Your task to perform on an android device: toggle pop-ups in chrome Image 0: 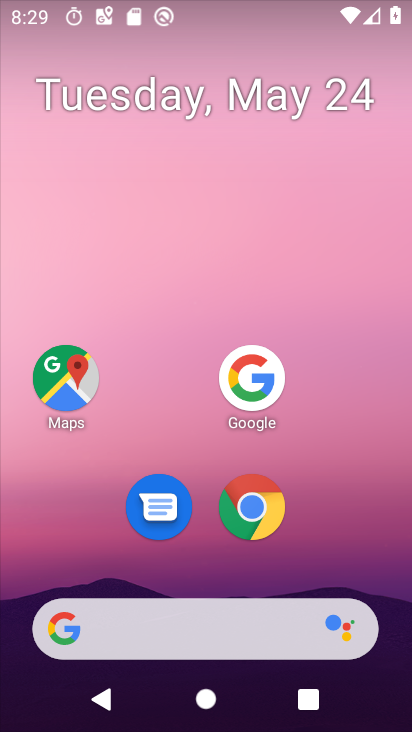
Step 0: press home button
Your task to perform on an android device: toggle pop-ups in chrome Image 1: 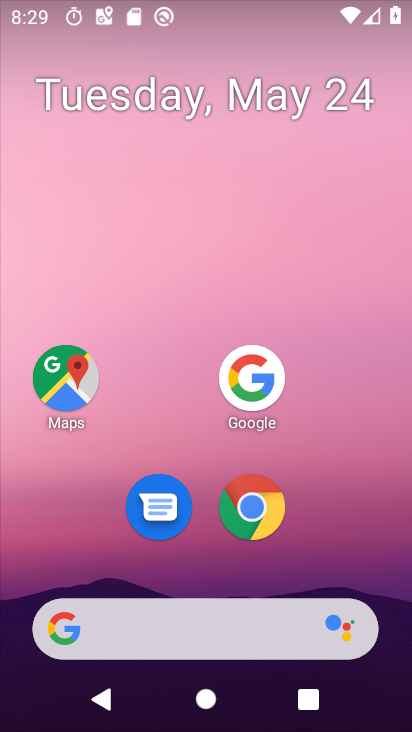
Step 1: click (256, 510)
Your task to perform on an android device: toggle pop-ups in chrome Image 2: 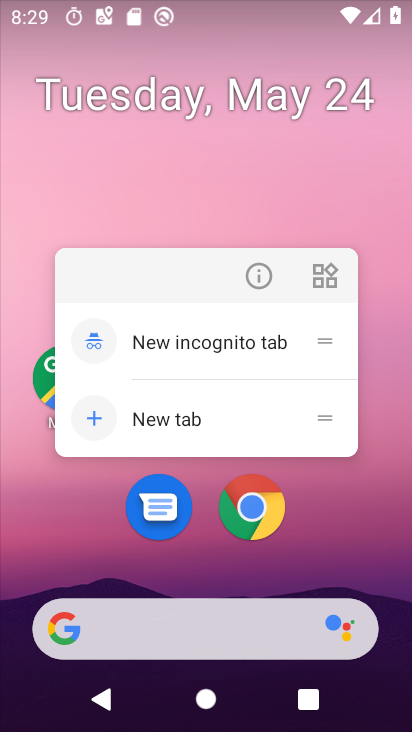
Step 2: click (260, 516)
Your task to perform on an android device: toggle pop-ups in chrome Image 3: 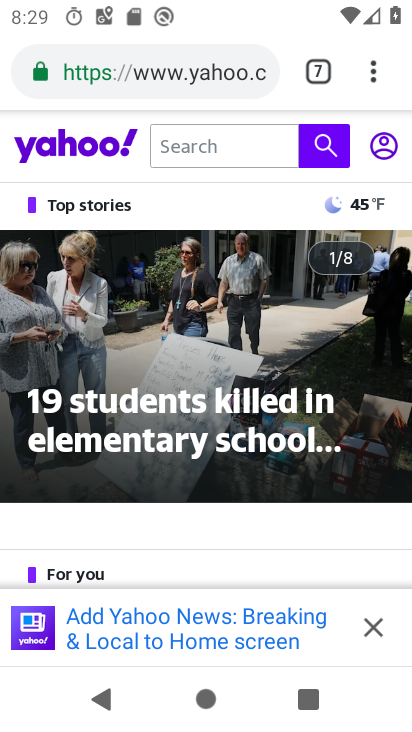
Step 3: drag from (375, 75) to (221, 513)
Your task to perform on an android device: toggle pop-ups in chrome Image 4: 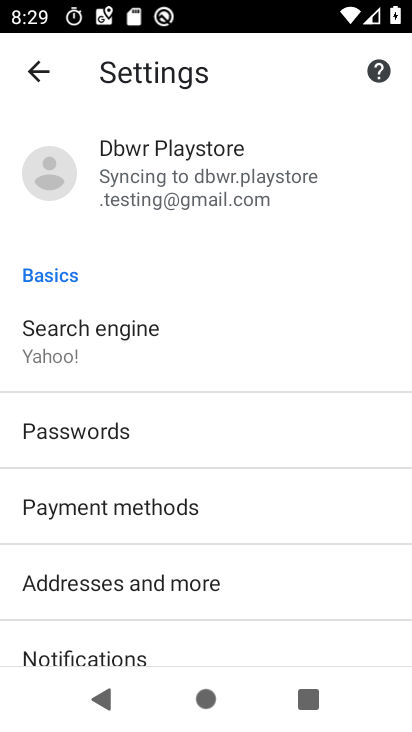
Step 4: drag from (224, 633) to (357, 54)
Your task to perform on an android device: toggle pop-ups in chrome Image 5: 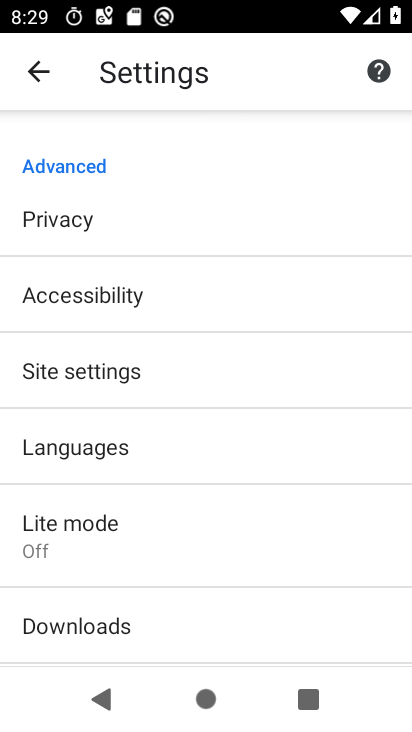
Step 5: click (132, 379)
Your task to perform on an android device: toggle pop-ups in chrome Image 6: 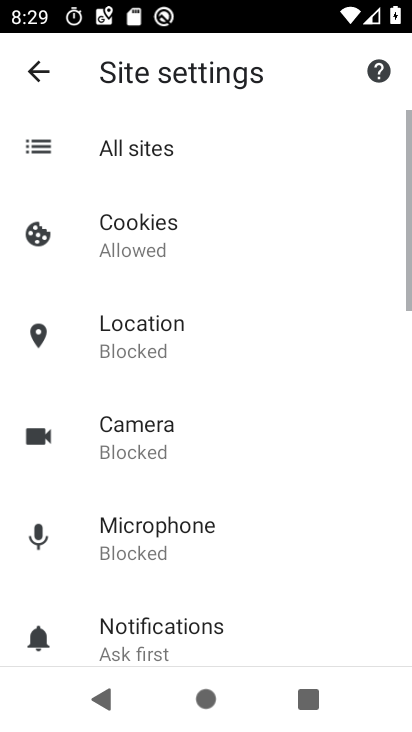
Step 6: drag from (240, 580) to (352, 140)
Your task to perform on an android device: toggle pop-ups in chrome Image 7: 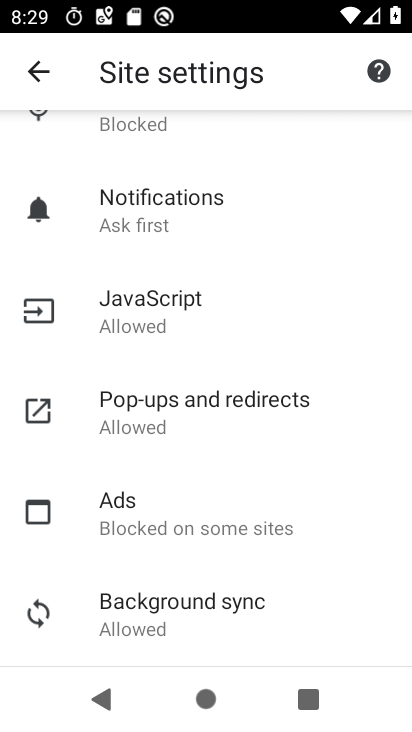
Step 7: click (206, 408)
Your task to perform on an android device: toggle pop-ups in chrome Image 8: 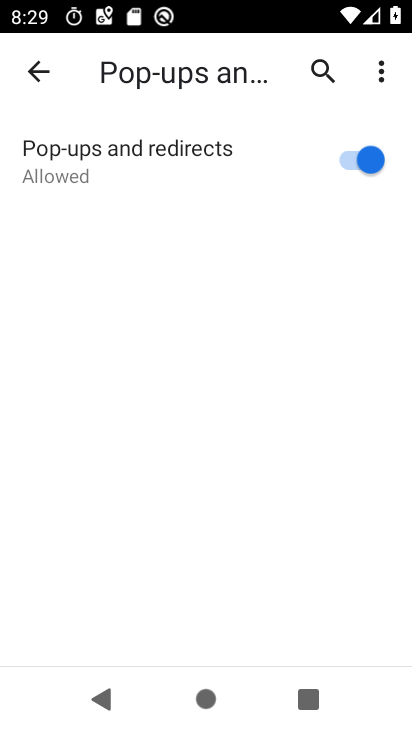
Step 8: click (345, 162)
Your task to perform on an android device: toggle pop-ups in chrome Image 9: 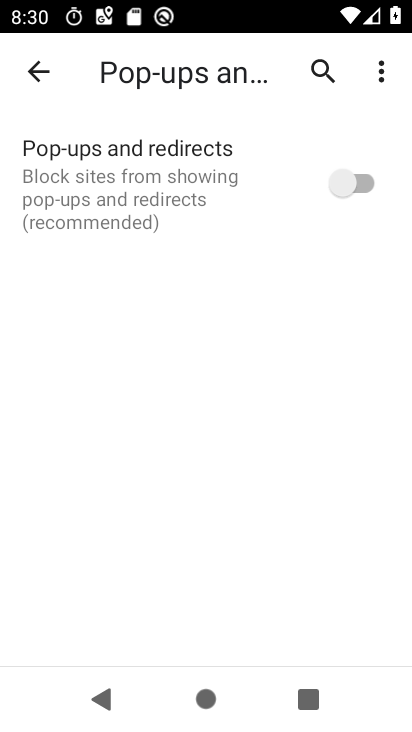
Step 9: task complete